Your task to perform on an android device: open chrome privacy settings Image 0: 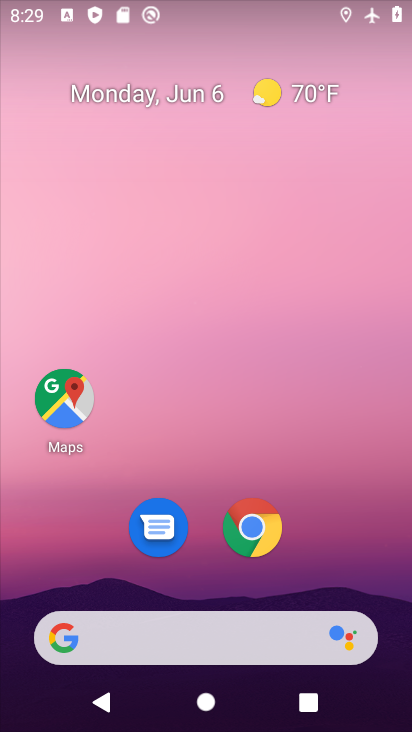
Step 0: drag from (240, 509) to (263, 372)
Your task to perform on an android device: open chrome privacy settings Image 1: 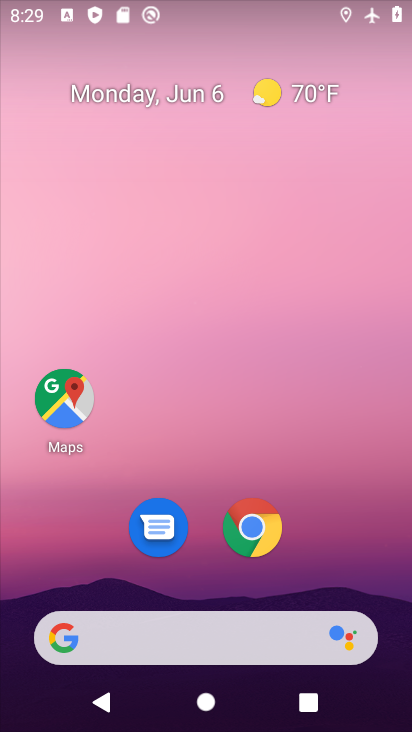
Step 1: drag from (226, 673) to (243, 233)
Your task to perform on an android device: open chrome privacy settings Image 2: 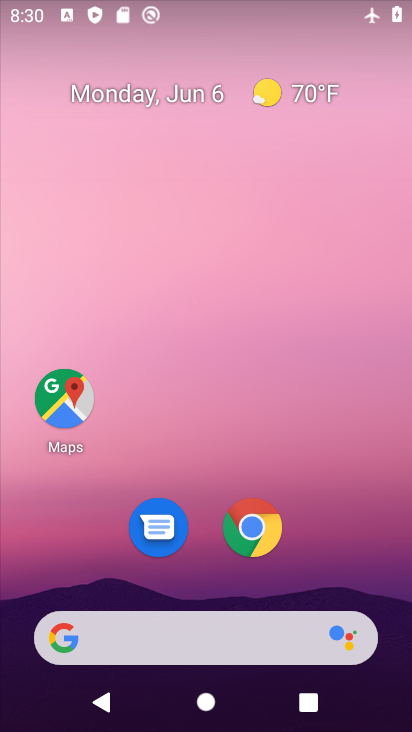
Step 2: drag from (259, 576) to (293, 82)
Your task to perform on an android device: open chrome privacy settings Image 3: 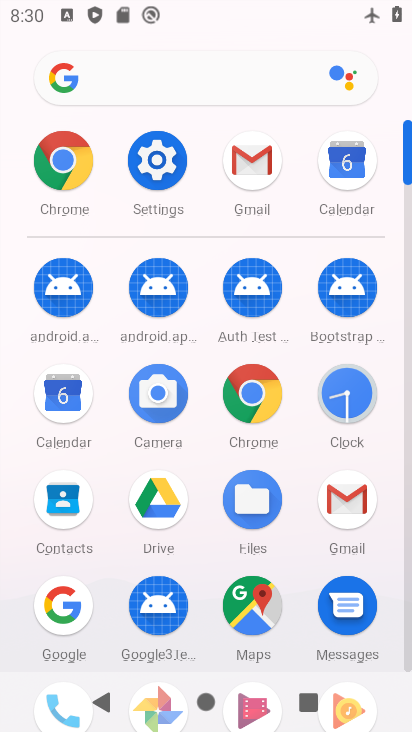
Step 3: click (267, 388)
Your task to perform on an android device: open chrome privacy settings Image 4: 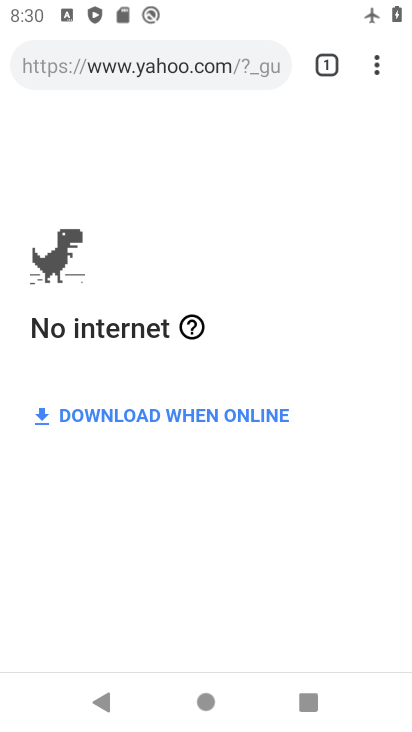
Step 4: click (381, 76)
Your task to perform on an android device: open chrome privacy settings Image 5: 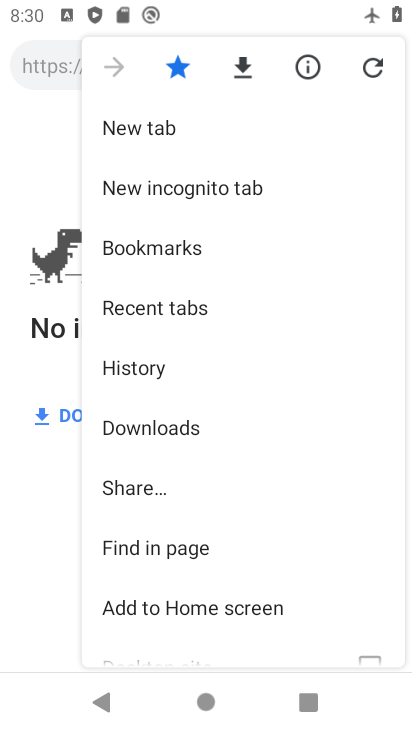
Step 5: drag from (178, 571) to (213, 393)
Your task to perform on an android device: open chrome privacy settings Image 6: 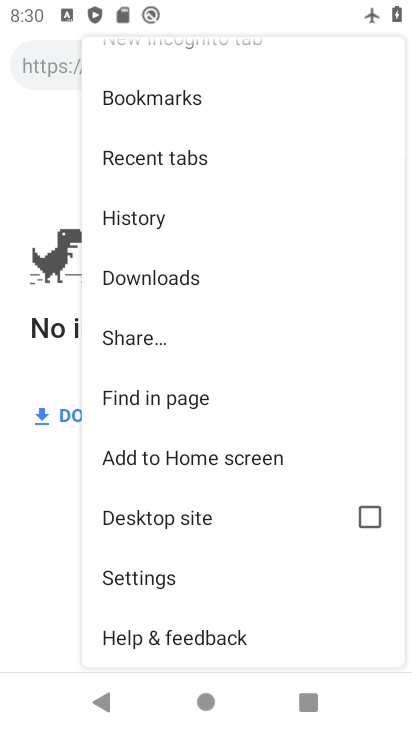
Step 6: drag from (250, 107) to (256, 69)
Your task to perform on an android device: open chrome privacy settings Image 7: 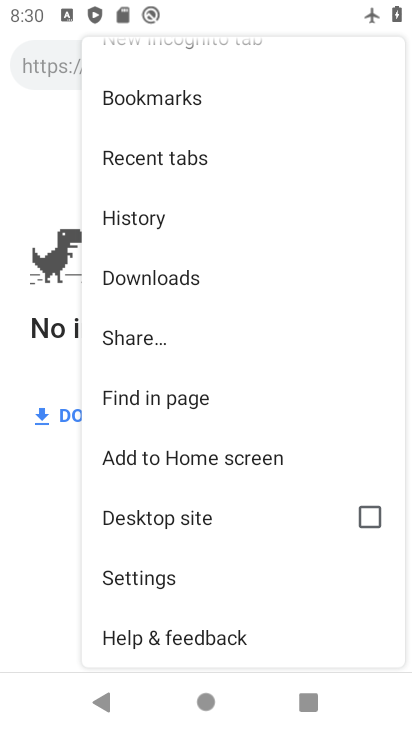
Step 7: click (189, 565)
Your task to perform on an android device: open chrome privacy settings Image 8: 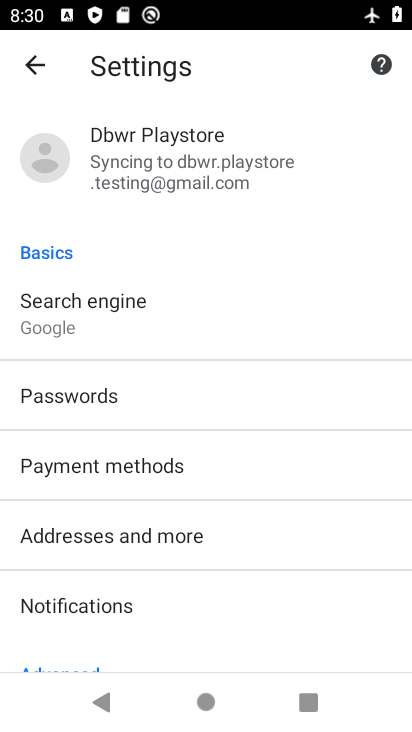
Step 8: drag from (158, 544) to (180, 245)
Your task to perform on an android device: open chrome privacy settings Image 9: 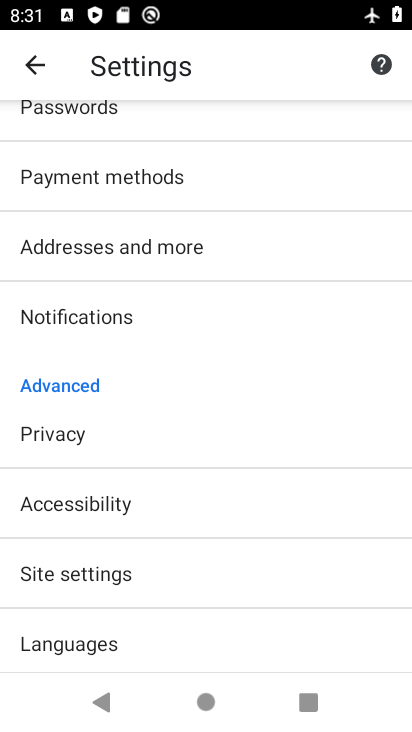
Step 9: click (82, 442)
Your task to perform on an android device: open chrome privacy settings Image 10: 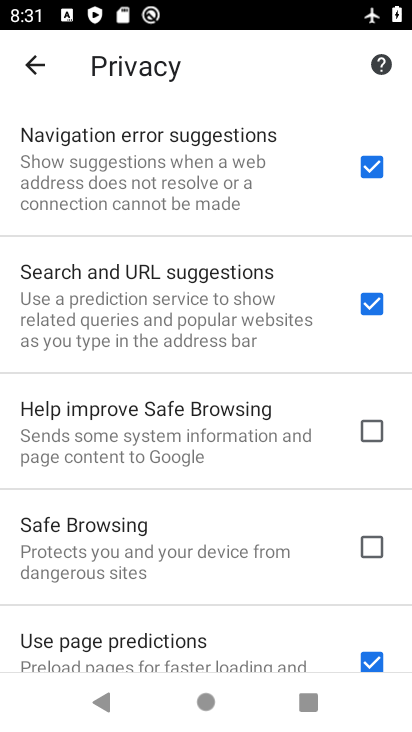
Step 10: task complete